Your task to perform on an android device: change the clock display to show seconds Image 0: 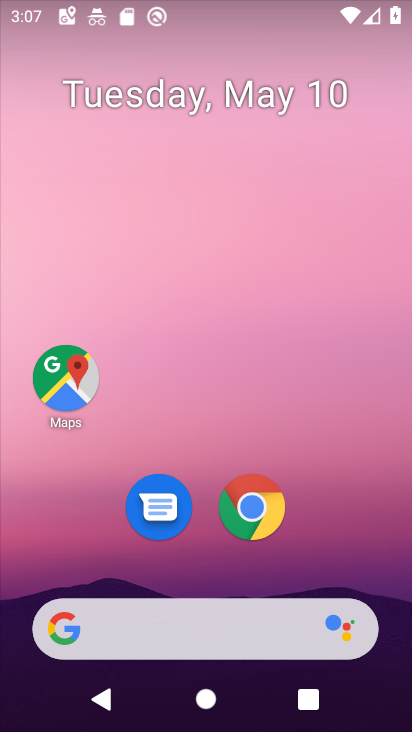
Step 0: drag from (207, 563) to (244, 181)
Your task to perform on an android device: change the clock display to show seconds Image 1: 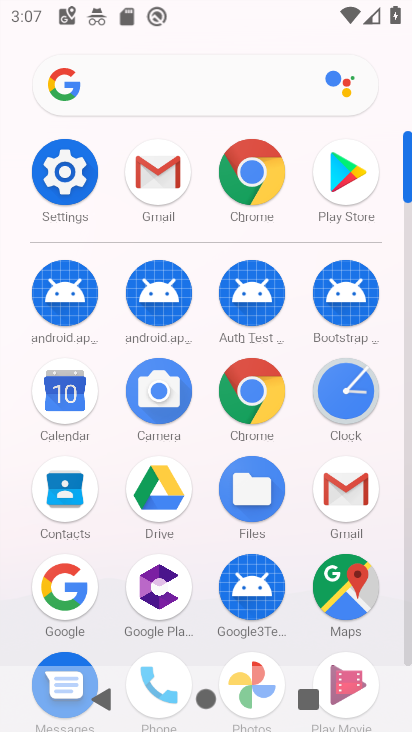
Step 1: click (340, 389)
Your task to perform on an android device: change the clock display to show seconds Image 2: 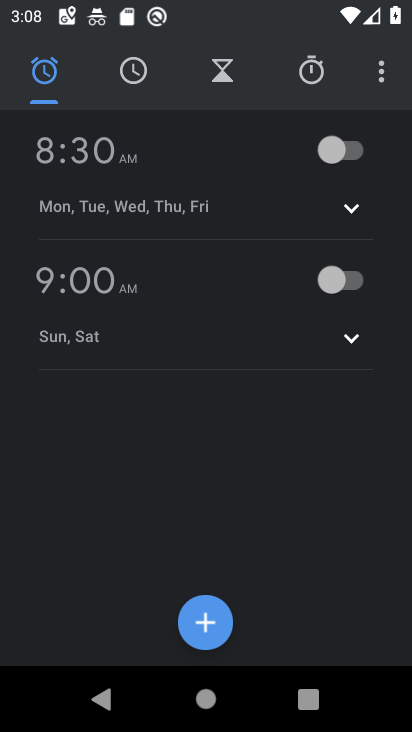
Step 2: click (387, 78)
Your task to perform on an android device: change the clock display to show seconds Image 3: 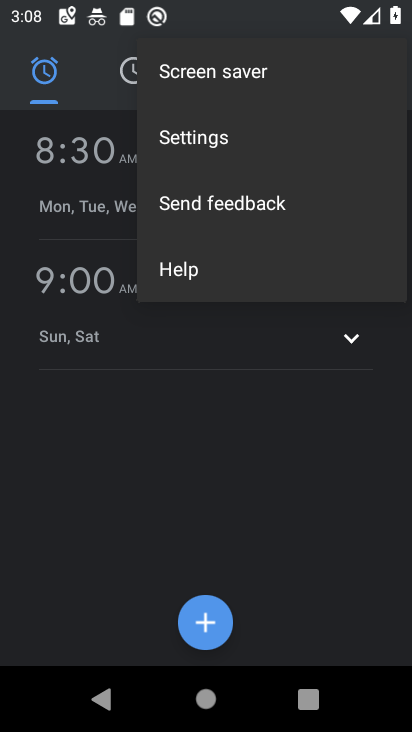
Step 3: click (209, 137)
Your task to perform on an android device: change the clock display to show seconds Image 4: 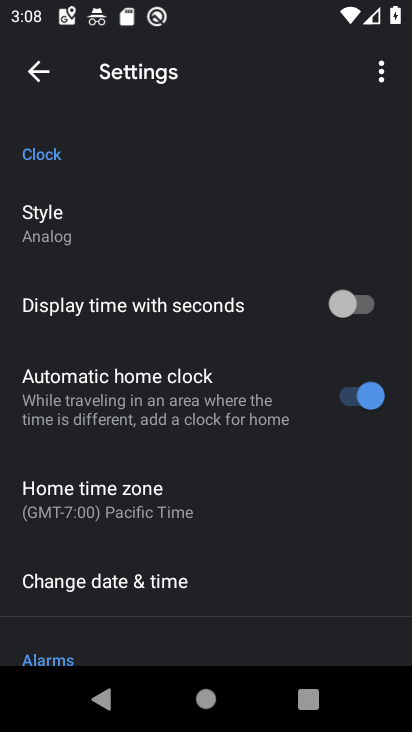
Step 4: click (358, 314)
Your task to perform on an android device: change the clock display to show seconds Image 5: 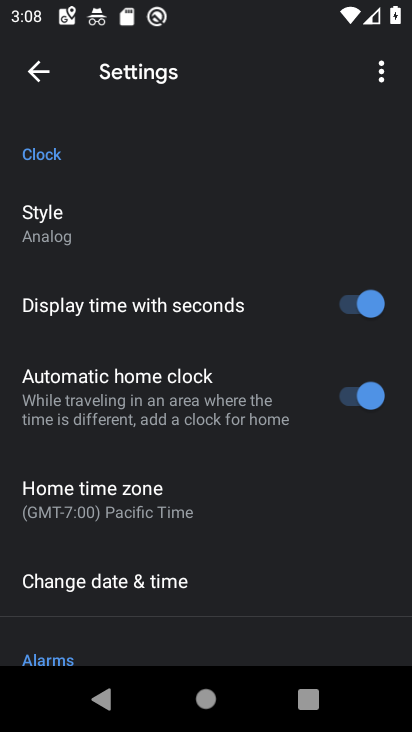
Step 5: task complete